Your task to perform on an android device: turn notification dots on Image 0: 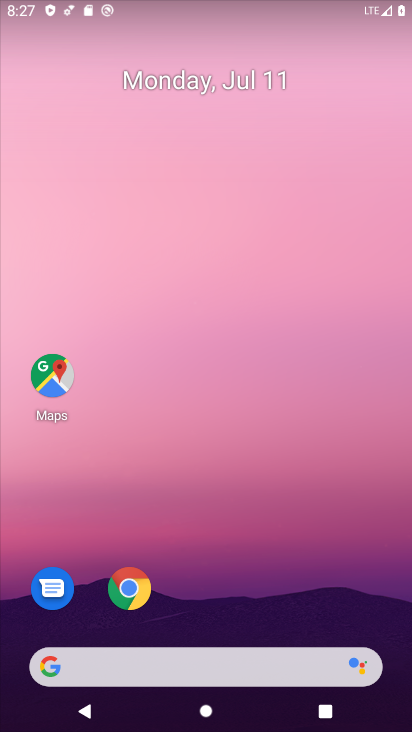
Step 0: drag from (245, 303) to (214, 185)
Your task to perform on an android device: turn notification dots on Image 1: 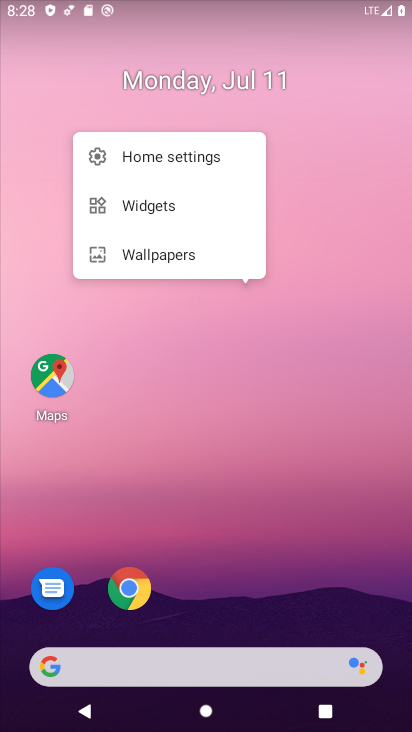
Step 1: click (267, 517)
Your task to perform on an android device: turn notification dots on Image 2: 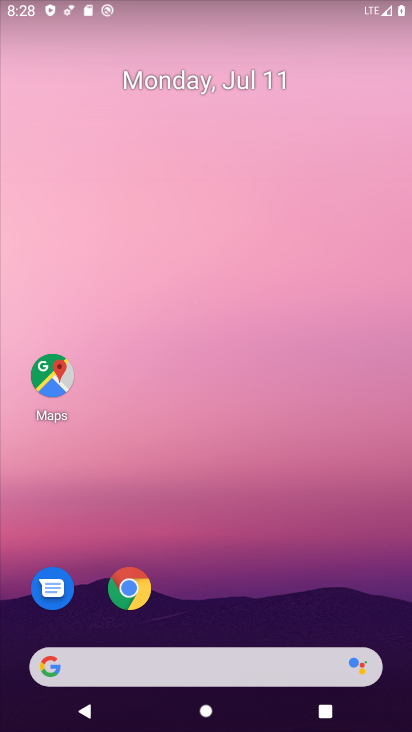
Step 2: drag from (265, 580) to (195, 132)
Your task to perform on an android device: turn notification dots on Image 3: 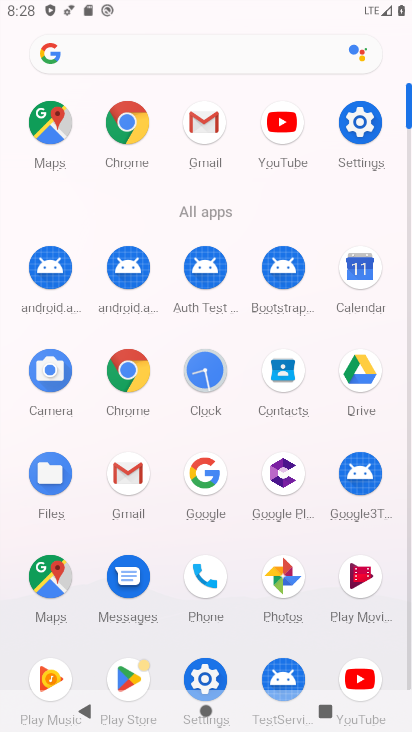
Step 3: click (352, 125)
Your task to perform on an android device: turn notification dots on Image 4: 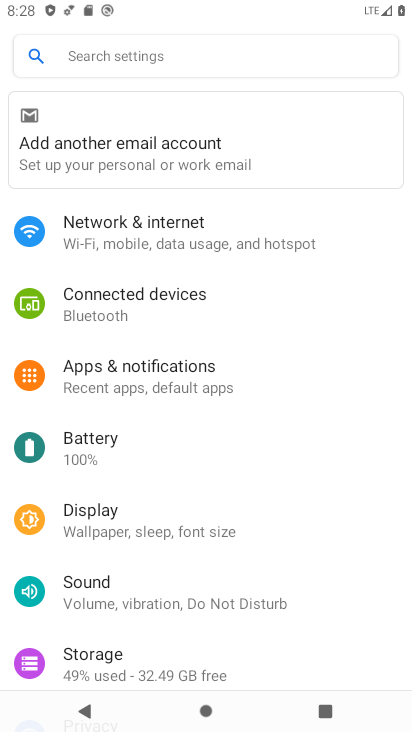
Step 4: click (187, 380)
Your task to perform on an android device: turn notification dots on Image 5: 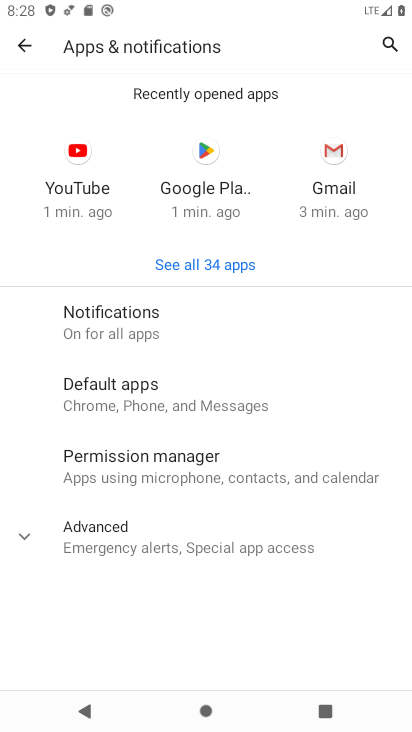
Step 5: click (175, 337)
Your task to perform on an android device: turn notification dots on Image 6: 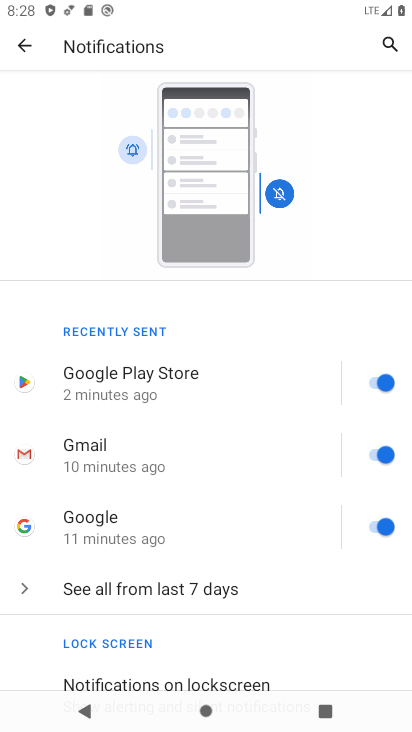
Step 6: drag from (214, 403) to (220, 249)
Your task to perform on an android device: turn notification dots on Image 7: 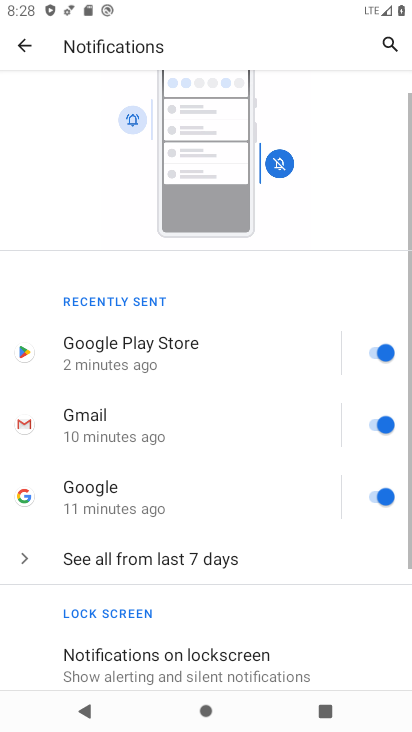
Step 7: drag from (256, 280) to (251, 153)
Your task to perform on an android device: turn notification dots on Image 8: 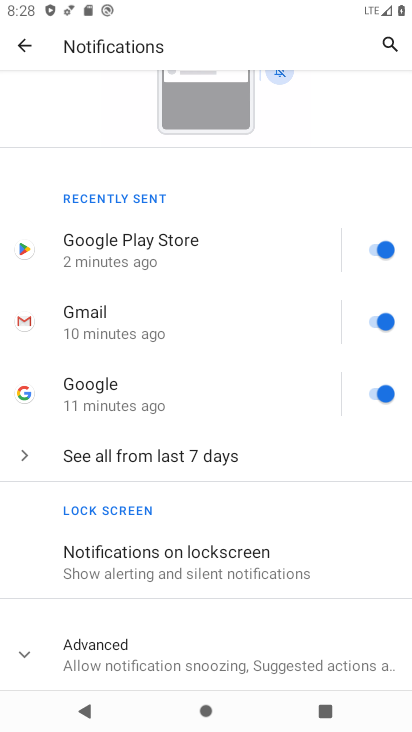
Step 8: click (286, 391)
Your task to perform on an android device: turn notification dots on Image 9: 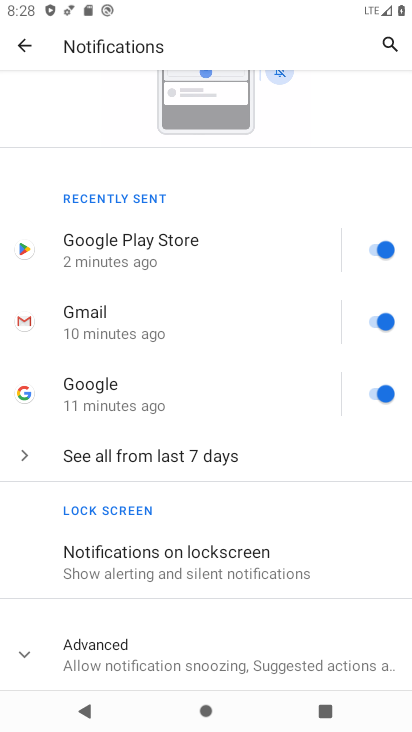
Step 9: click (265, 665)
Your task to perform on an android device: turn notification dots on Image 10: 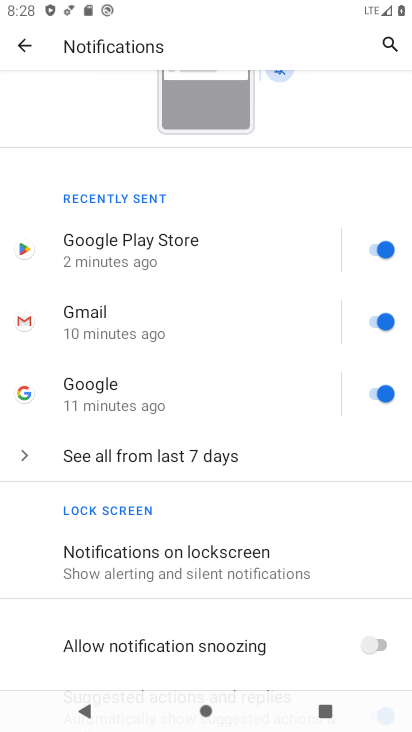
Step 10: task complete